Your task to perform on an android device: open app "PlayWell" (install if not already installed), go to login, and select forgot password Image 0: 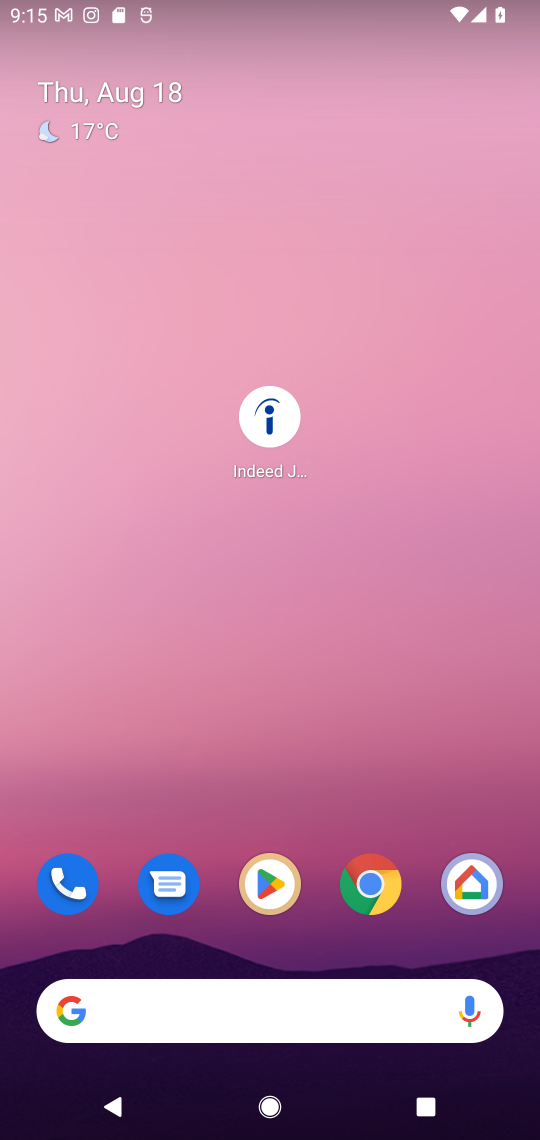
Step 0: drag from (211, 997) to (344, 110)
Your task to perform on an android device: open app "PlayWell" (install if not already installed), go to login, and select forgot password Image 1: 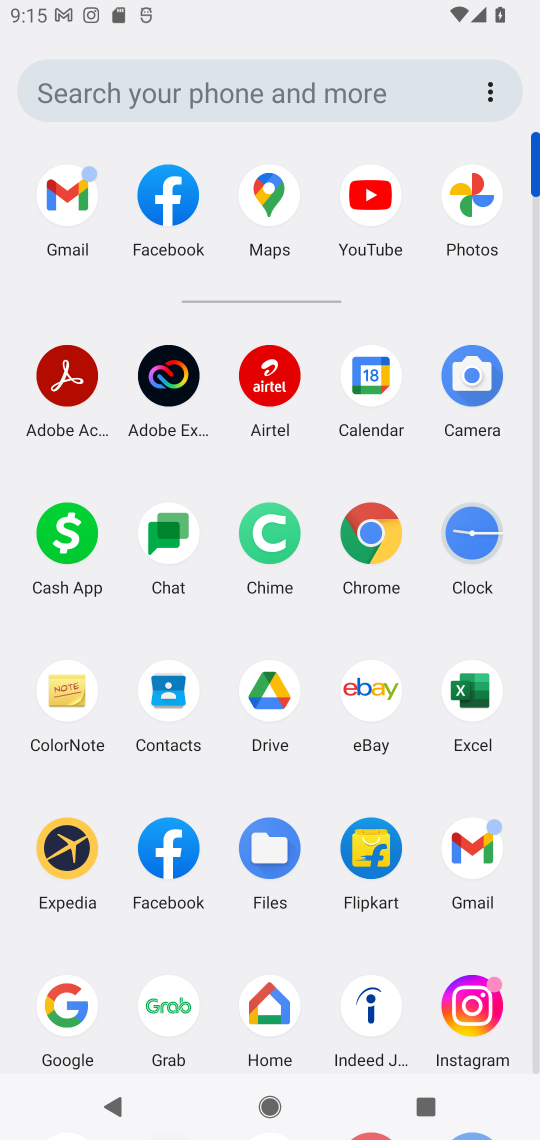
Step 1: drag from (220, 1035) to (336, 300)
Your task to perform on an android device: open app "PlayWell" (install if not already installed), go to login, and select forgot password Image 2: 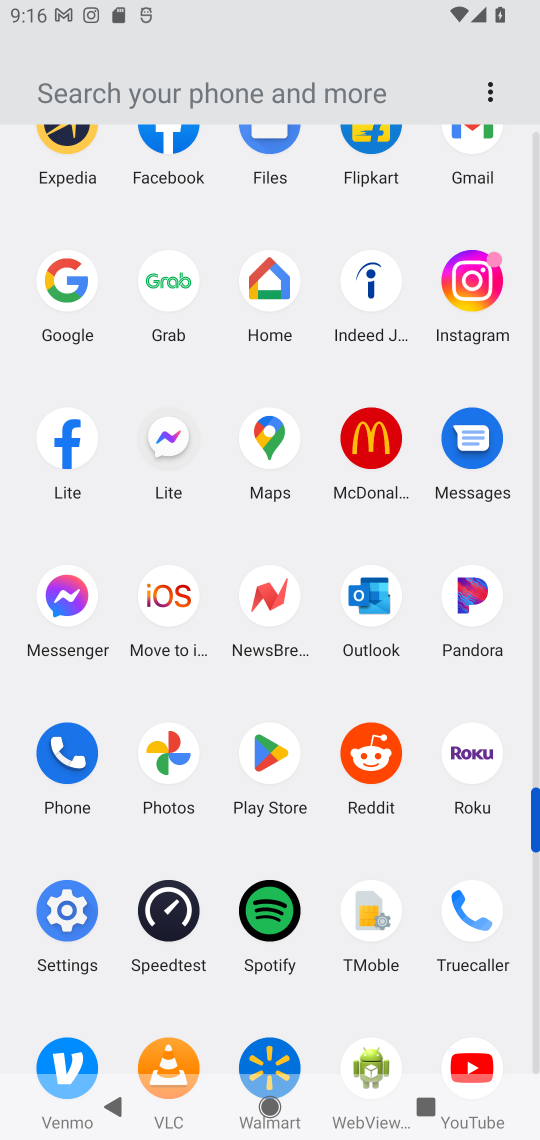
Step 2: click (266, 753)
Your task to perform on an android device: open app "PlayWell" (install if not already installed), go to login, and select forgot password Image 3: 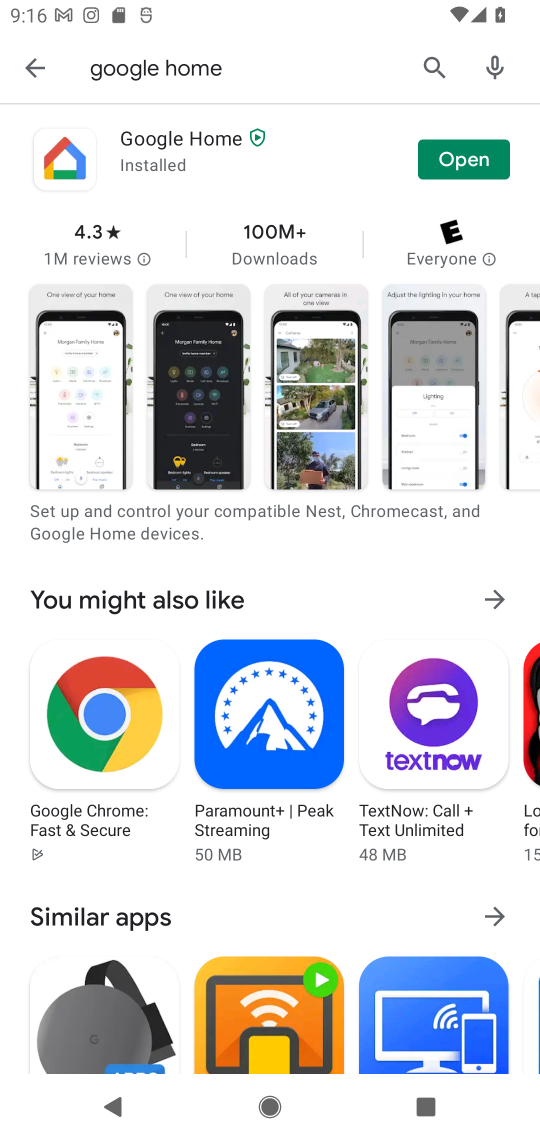
Step 3: press back button
Your task to perform on an android device: open app "PlayWell" (install if not already installed), go to login, and select forgot password Image 4: 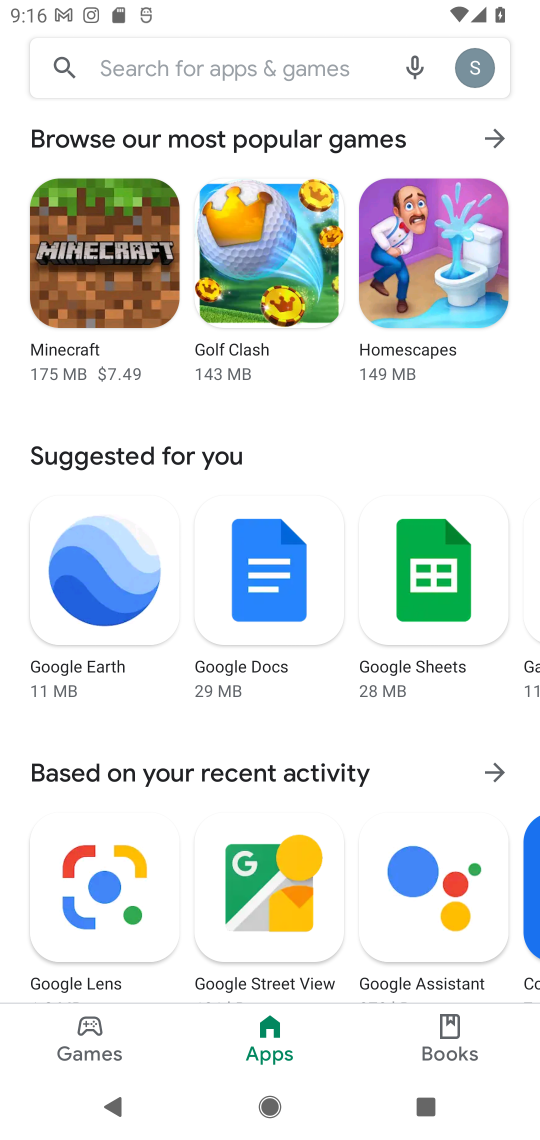
Step 4: click (187, 69)
Your task to perform on an android device: open app "PlayWell" (install if not already installed), go to login, and select forgot password Image 5: 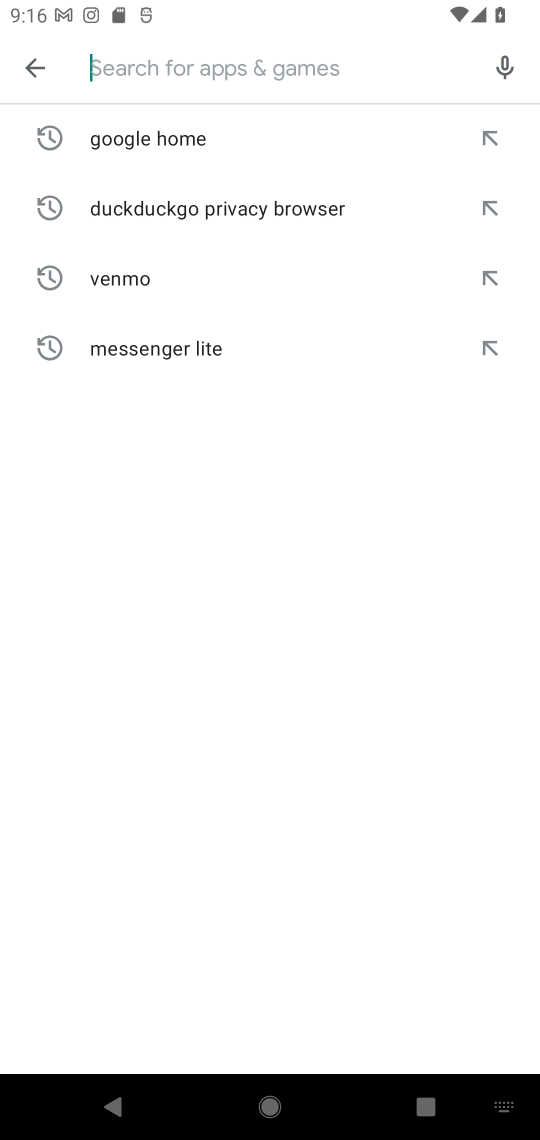
Step 5: type "PlayWell"
Your task to perform on an android device: open app "PlayWell" (install if not already installed), go to login, and select forgot password Image 6: 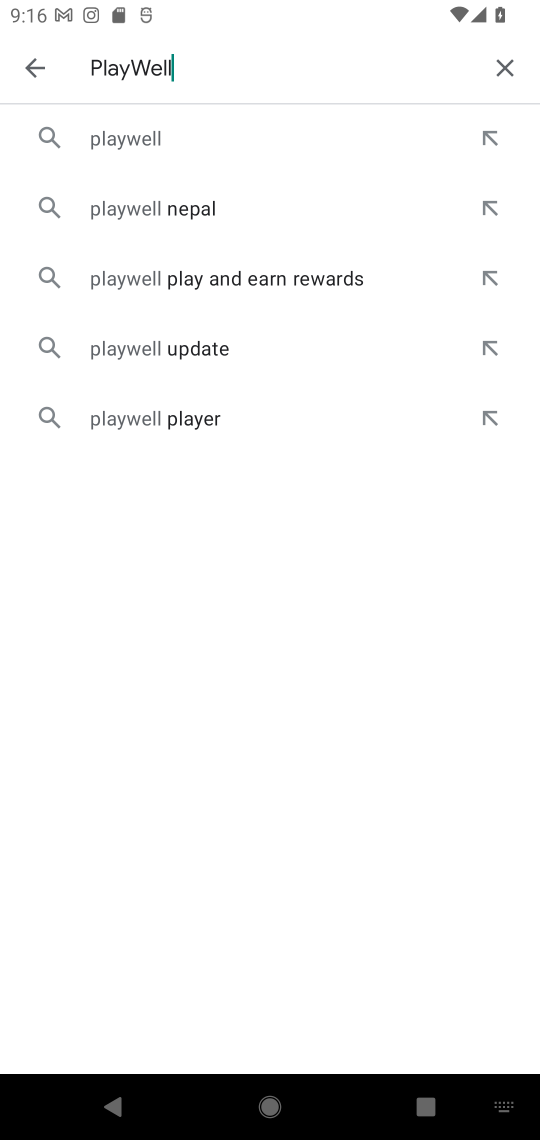
Step 6: click (107, 131)
Your task to perform on an android device: open app "PlayWell" (install if not already installed), go to login, and select forgot password Image 7: 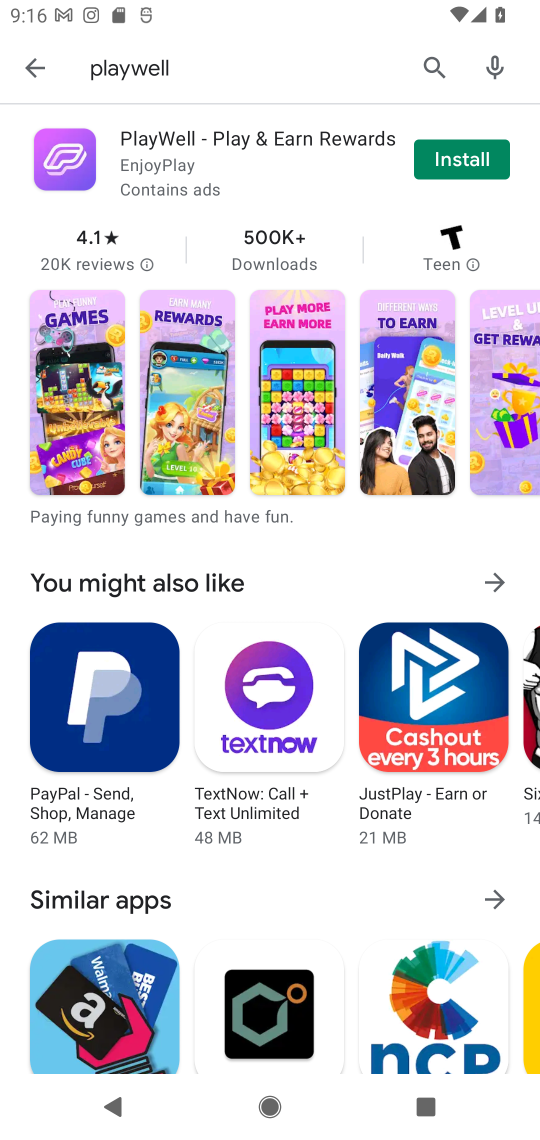
Step 7: click (455, 168)
Your task to perform on an android device: open app "PlayWell" (install if not already installed), go to login, and select forgot password Image 8: 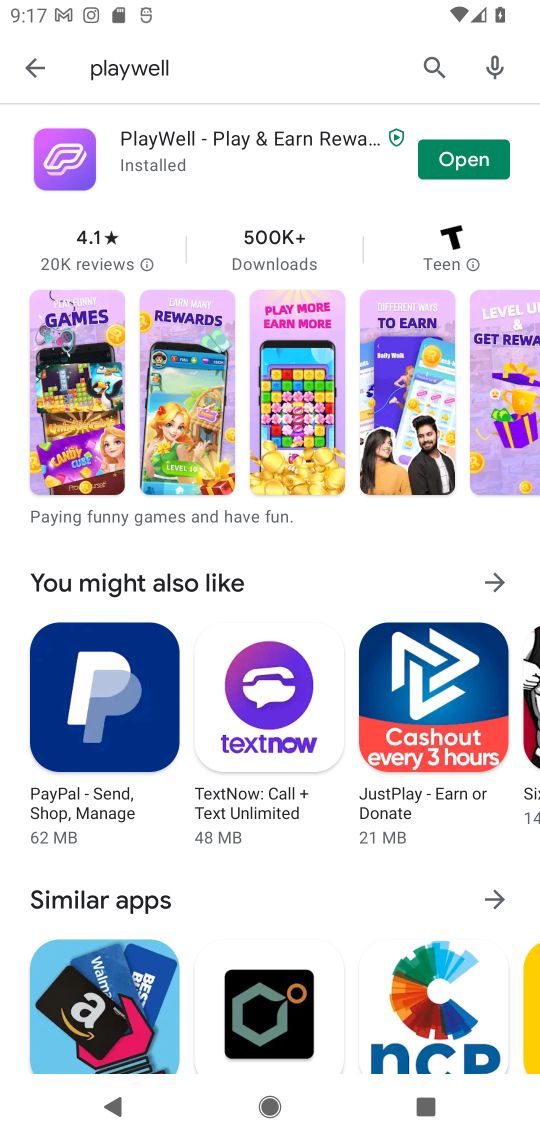
Step 8: click (478, 170)
Your task to perform on an android device: open app "PlayWell" (install if not already installed), go to login, and select forgot password Image 9: 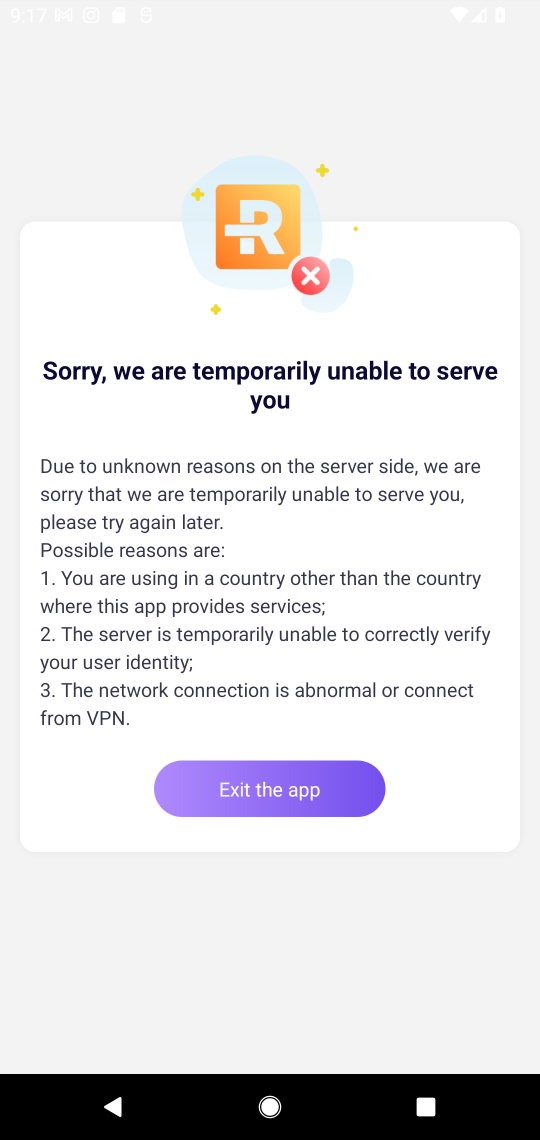
Step 9: click (304, 274)
Your task to perform on an android device: open app "PlayWell" (install if not already installed), go to login, and select forgot password Image 10: 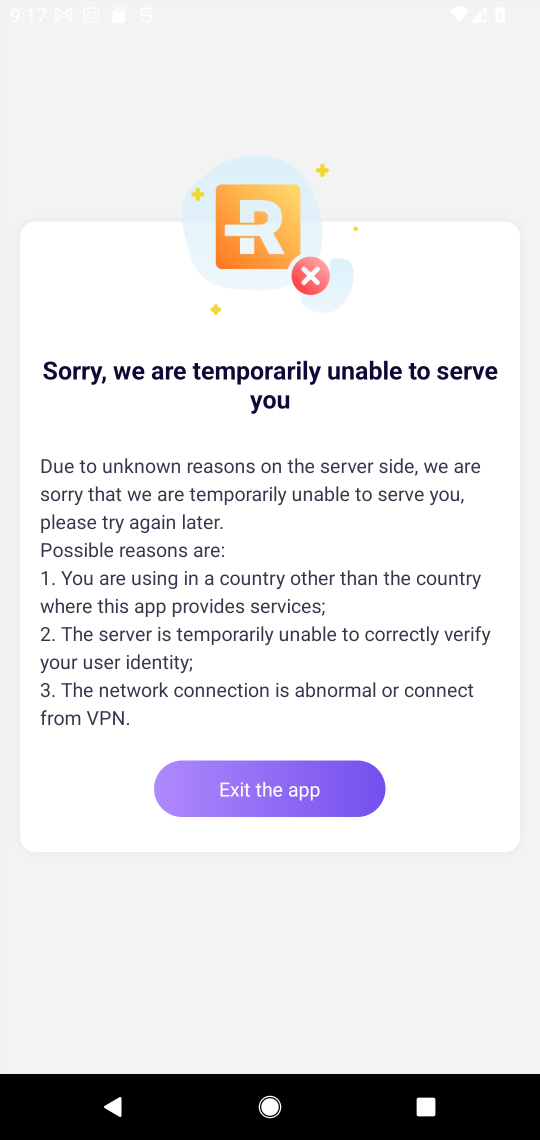
Step 10: click (294, 801)
Your task to perform on an android device: open app "PlayWell" (install if not already installed), go to login, and select forgot password Image 11: 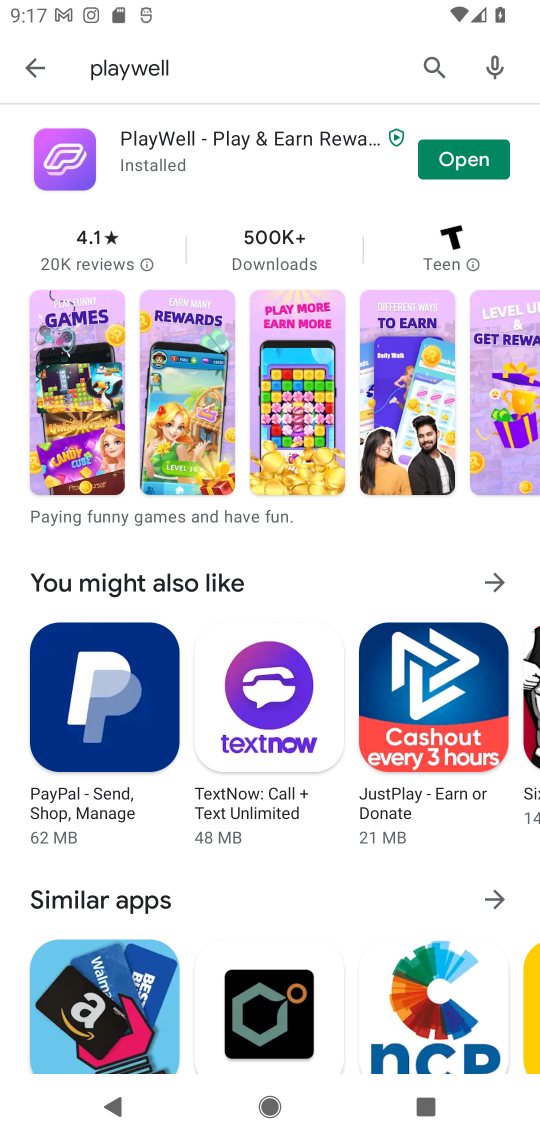
Step 11: click (450, 173)
Your task to perform on an android device: open app "PlayWell" (install if not already installed), go to login, and select forgot password Image 12: 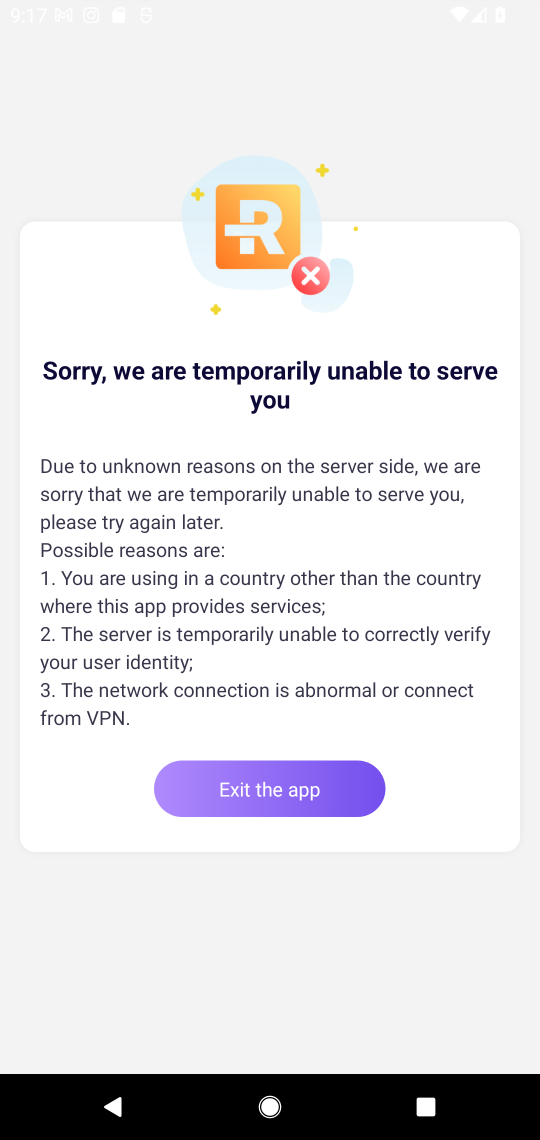
Step 12: click (301, 882)
Your task to perform on an android device: open app "PlayWell" (install if not already installed), go to login, and select forgot password Image 13: 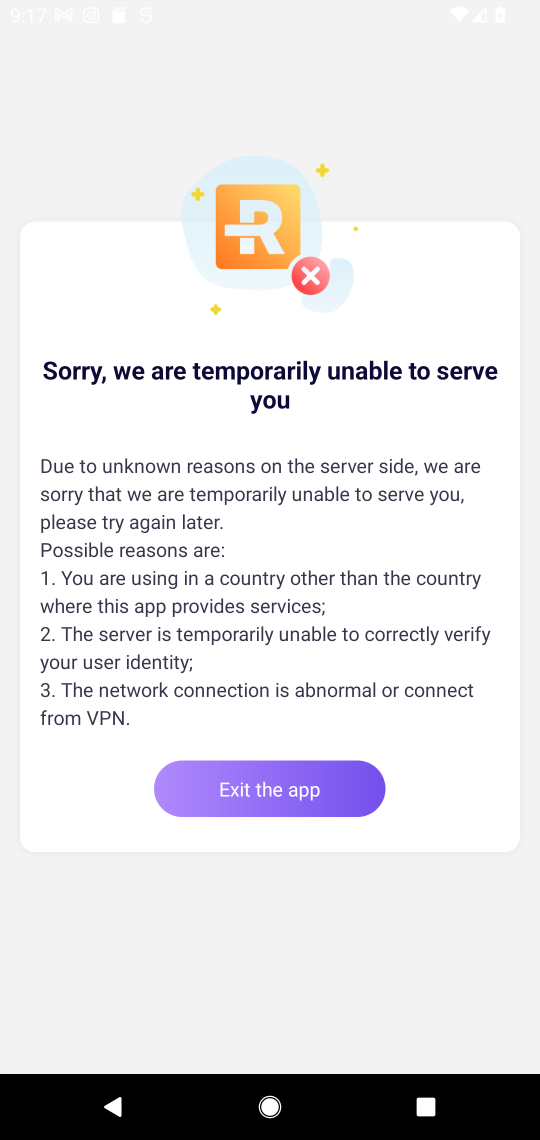
Step 13: click (301, 882)
Your task to perform on an android device: open app "PlayWell" (install if not already installed), go to login, and select forgot password Image 14: 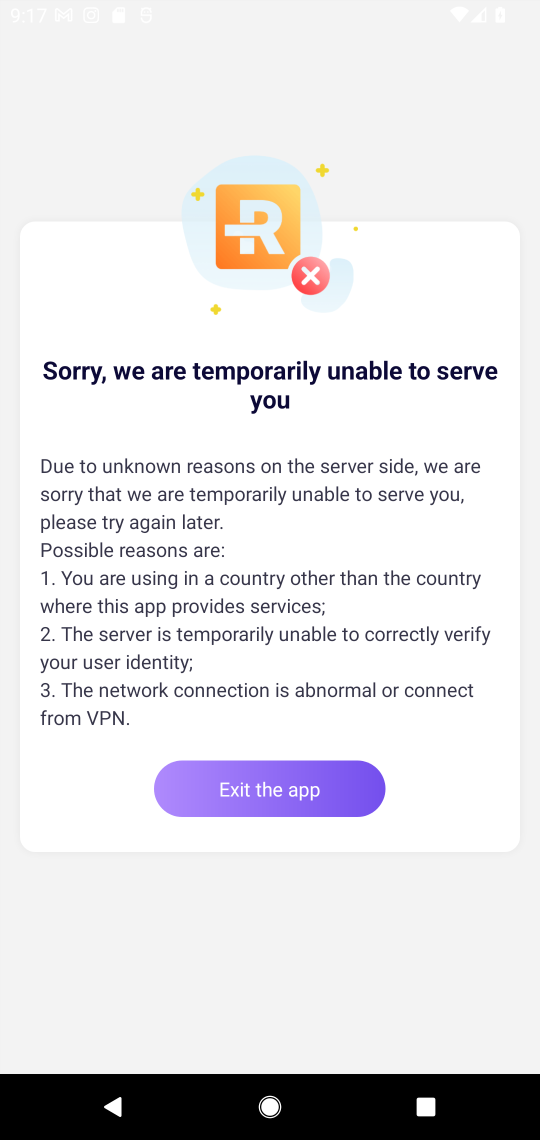
Step 14: click (353, 166)
Your task to perform on an android device: open app "PlayWell" (install if not already installed), go to login, and select forgot password Image 15: 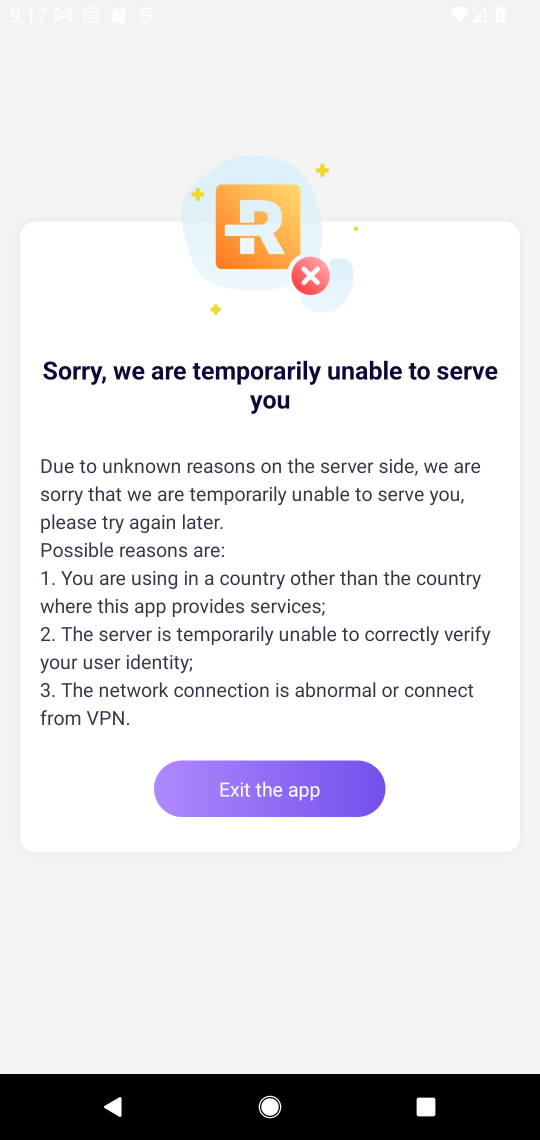
Step 15: click (300, 790)
Your task to perform on an android device: open app "PlayWell" (install if not already installed), go to login, and select forgot password Image 16: 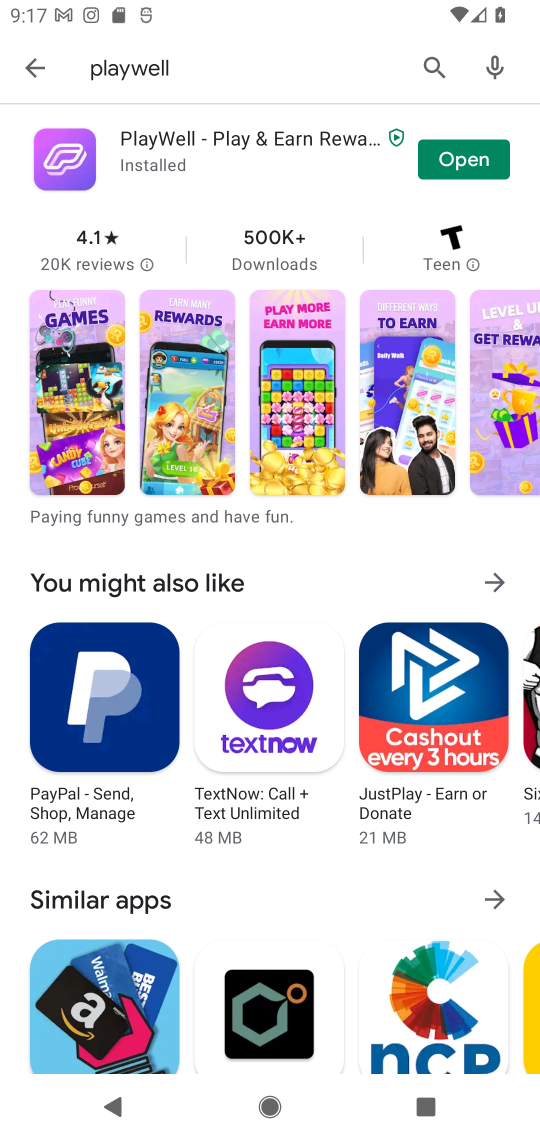
Step 16: task complete